Your task to perform on an android device: turn pop-ups on in chrome Image 0: 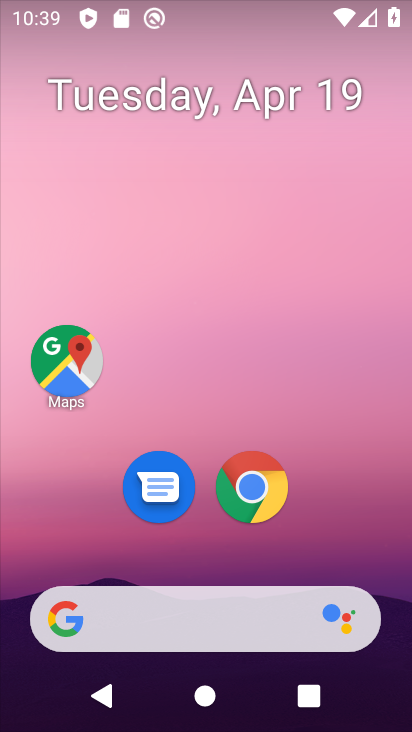
Step 0: click (254, 494)
Your task to perform on an android device: turn pop-ups on in chrome Image 1: 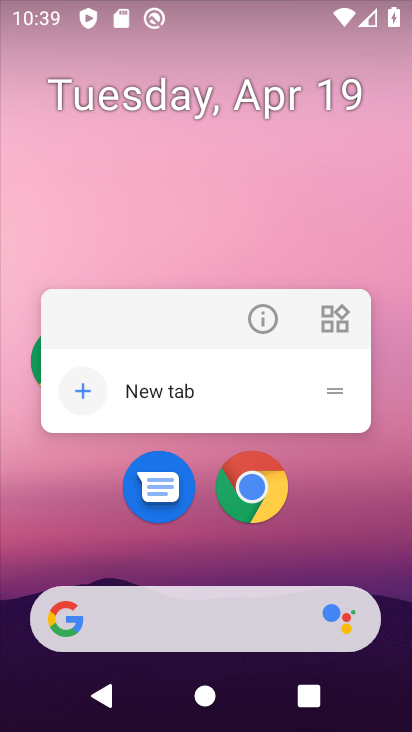
Step 1: click (258, 493)
Your task to perform on an android device: turn pop-ups on in chrome Image 2: 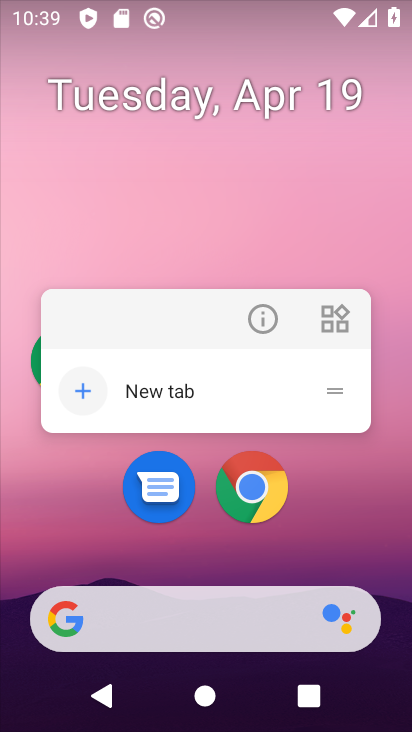
Step 2: click (250, 508)
Your task to perform on an android device: turn pop-ups on in chrome Image 3: 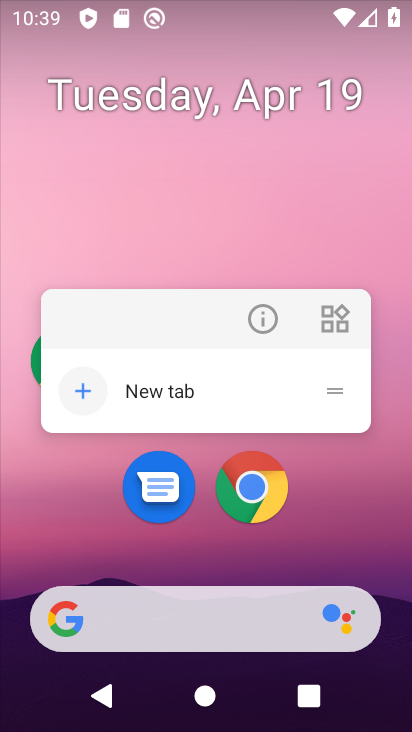
Step 3: click (263, 495)
Your task to perform on an android device: turn pop-ups on in chrome Image 4: 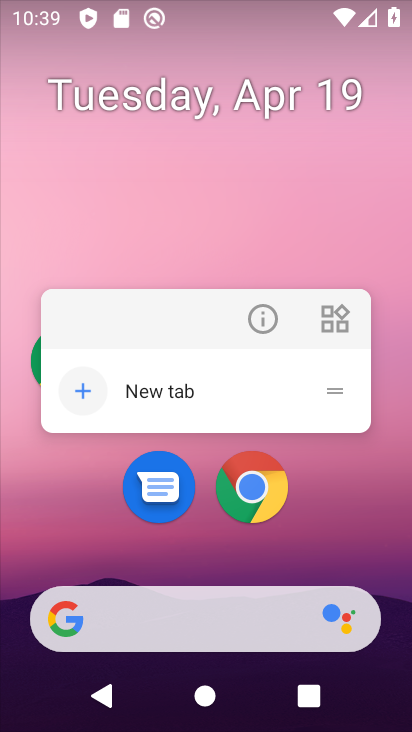
Step 4: click (259, 482)
Your task to perform on an android device: turn pop-ups on in chrome Image 5: 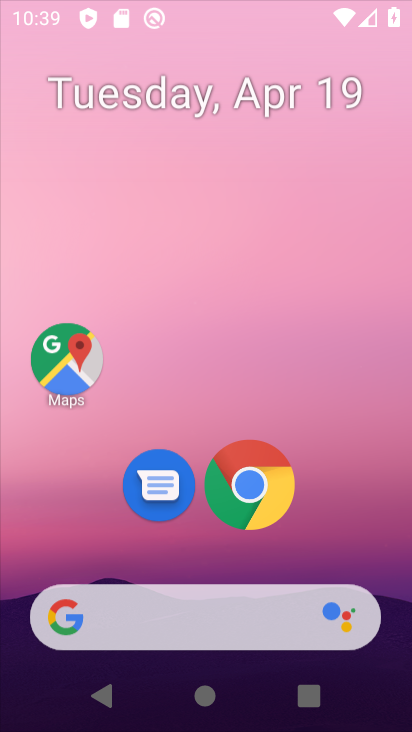
Step 5: click (240, 487)
Your task to perform on an android device: turn pop-ups on in chrome Image 6: 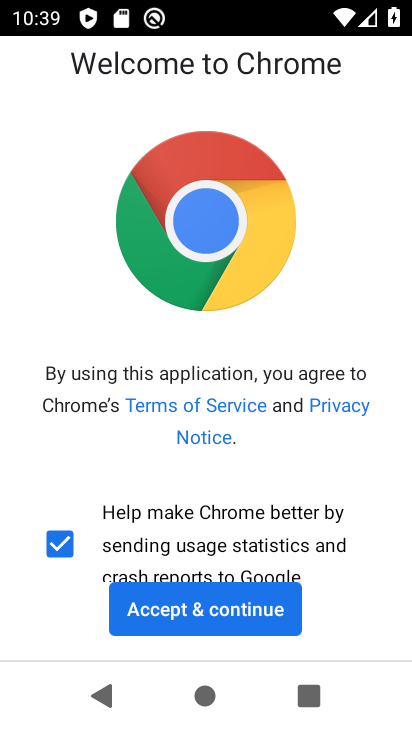
Step 6: click (207, 619)
Your task to perform on an android device: turn pop-ups on in chrome Image 7: 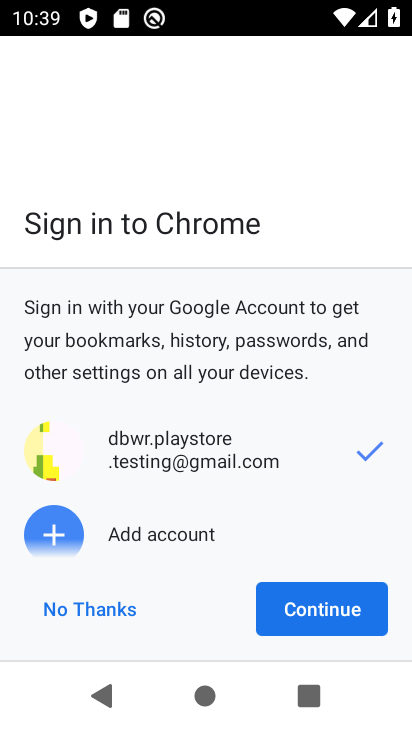
Step 7: click (373, 618)
Your task to perform on an android device: turn pop-ups on in chrome Image 8: 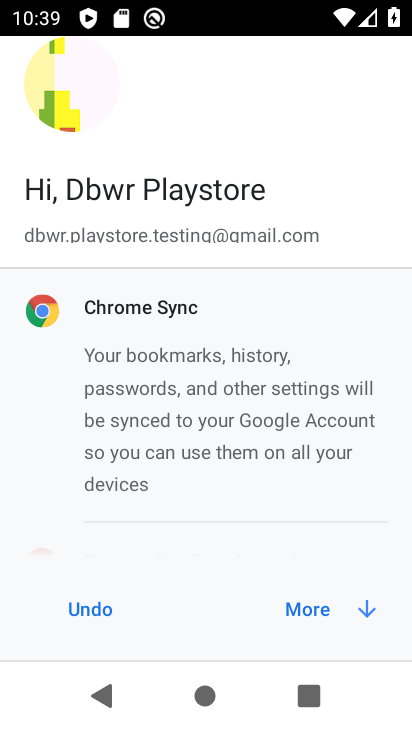
Step 8: click (356, 622)
Your task to perform on an android device: turn pop-ups on in chrome Image 9: 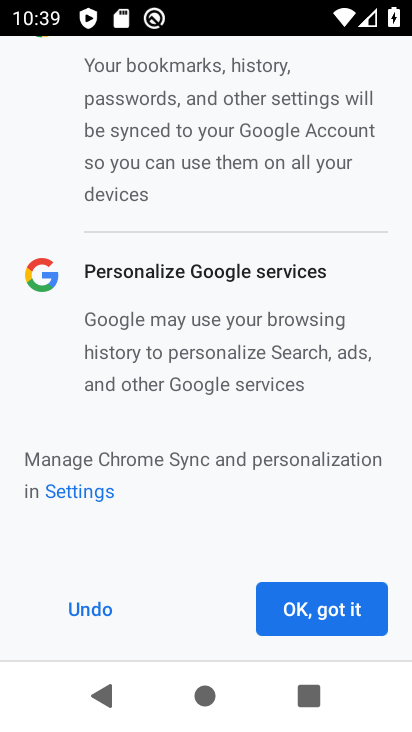
Step 9: click (355, 622)
Your task to perform on an android device: turn pop-ups on in chrome Image 10: 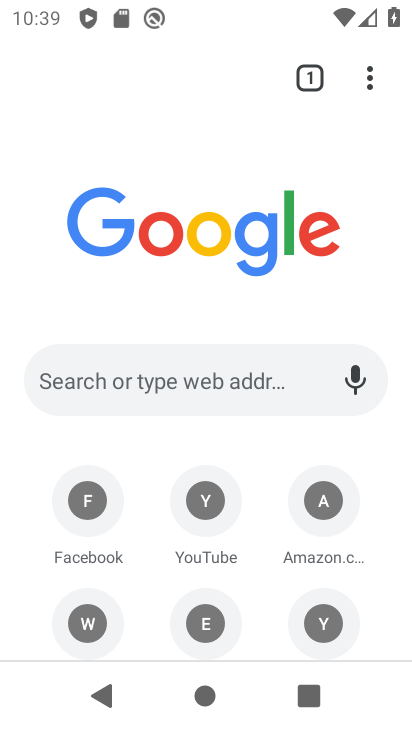
Step 10: click (370, 86)
Your task to perform on an android device: turn pop-ups on in chrome Image 11: 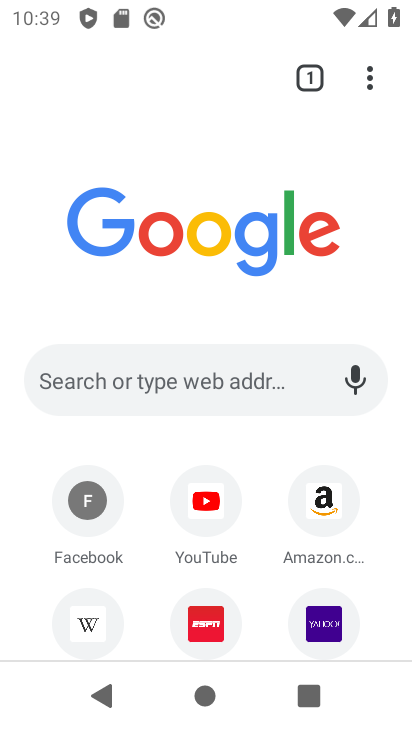
Step 11: drag from (370, 86) to (234, 554)
Your task to perform on an android device: turn pop-ups on in chrome Image 12: 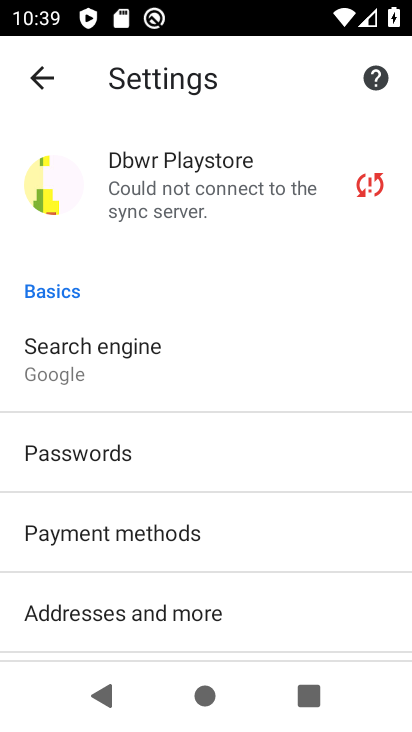
Step 12: drag from (216, 603) to (339, 230)
Your task to perform on an android device: turn pop-ups on in chrome Image 13: 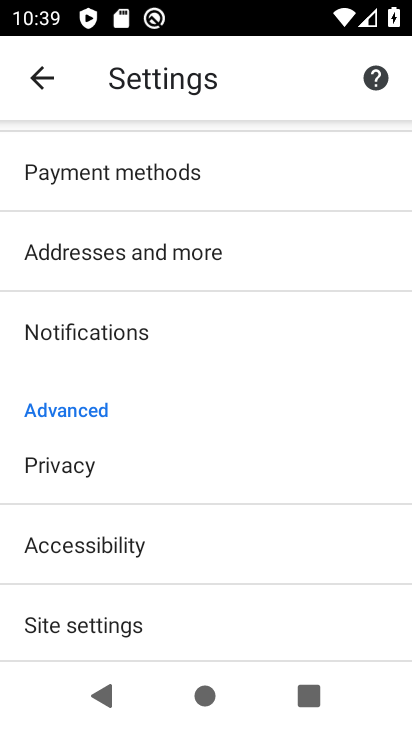
Step 13: click (169, 625)
Your task to perform on an android device: turn pop-ups on in chrome Image 14: 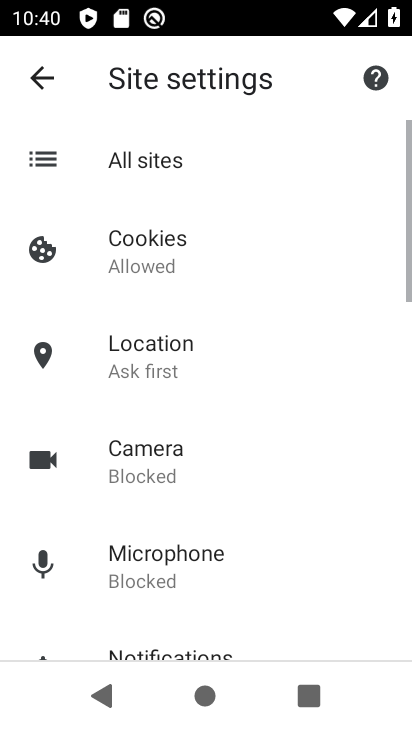
Step 14: drag from (255, 524) to (334, 230)
Your task to perform on an android device: turn pop-ups on in chrome Image 15: 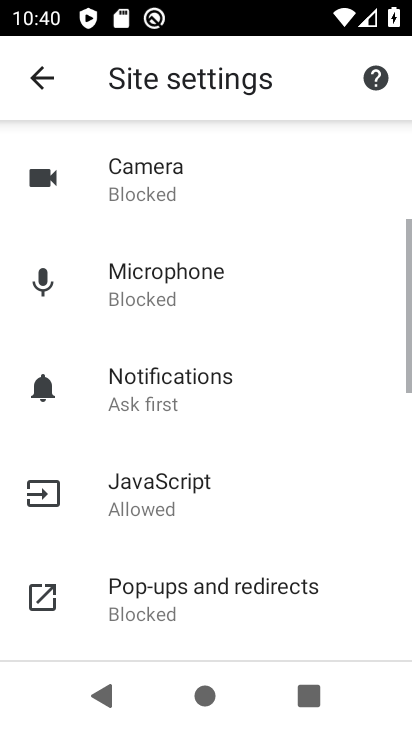
Step 15: click (261, 622)
Your task to perform on an android device: turn pop-ups on in chrome Image 16: 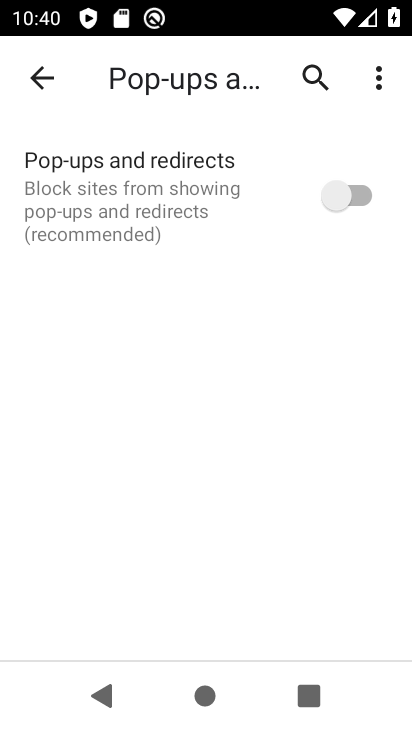
Step 16: click (367, 195)
Your task to perform on an android device: turn pop-ups on in chrome Image 17: 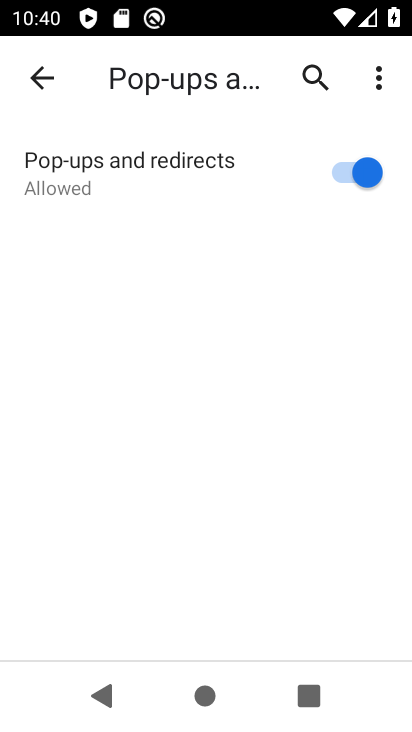
Step 17: task complete